Your task to perform on an android device: turn off priority inbox in the gmail app Image 0: 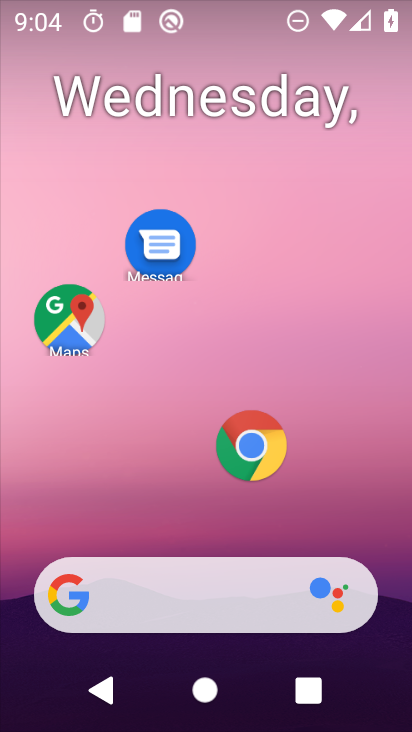
Step 0: drag from (196, 533) to (196, 82)
Your task to perform on an android device: turn off priority inbox in the gmail app Image 1: 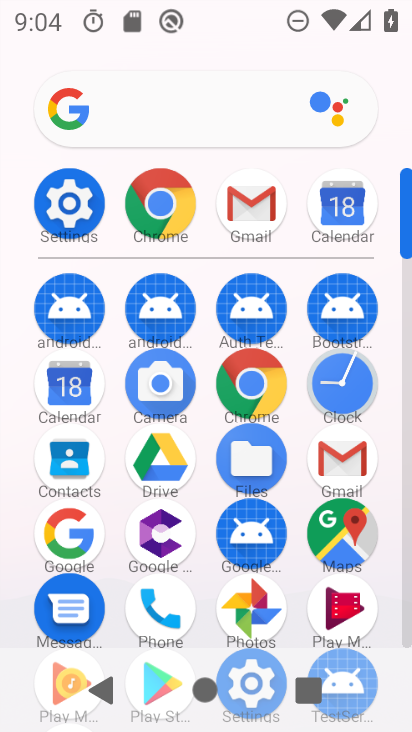
Step 1: click (252, 201)
Your task to perform on an android device: turn off priority inbox in the gmail app Image 2: 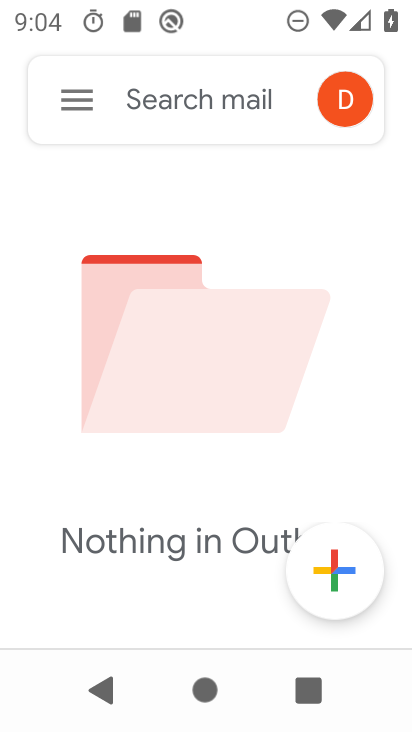
Step 2: click (79, 96)
Your task to perform on an android device: turn off priority inbox in the gmail app Image 3: 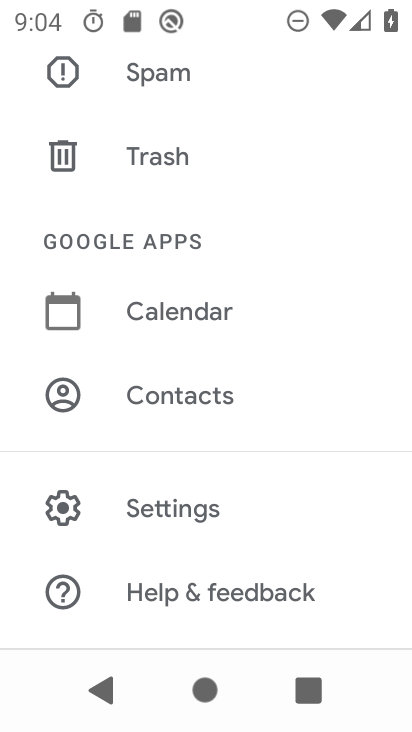
Step 3: click (229, 501)
Your task to perform on an android device: turn off priority inbox in the gmail app Image 4: 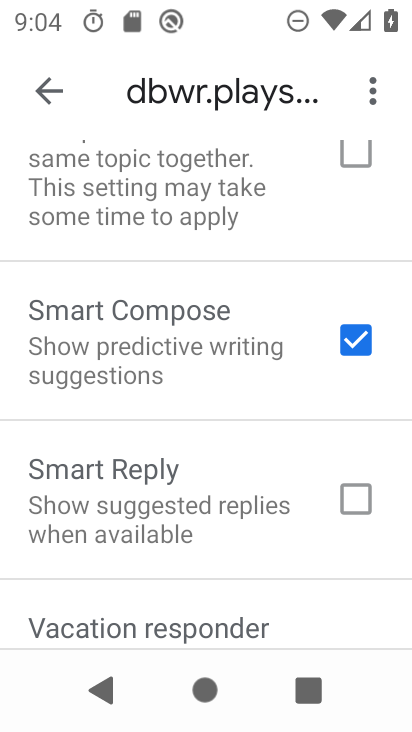
Step 4: drag from (179, 181) to (198, 654)
Your task to perform on an android device: turn off priority inbox in the gmail app Image 5: 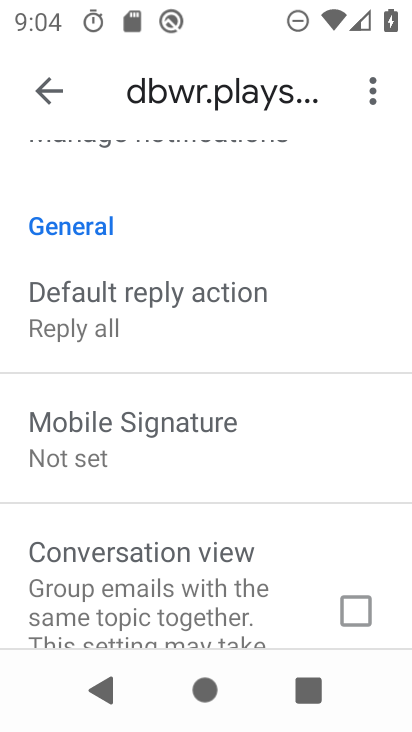
Step 5: drag from (161, 169) to (166, 653)
Your task to perform on an android device: turn off priority inbox in the gmail app Image 6: 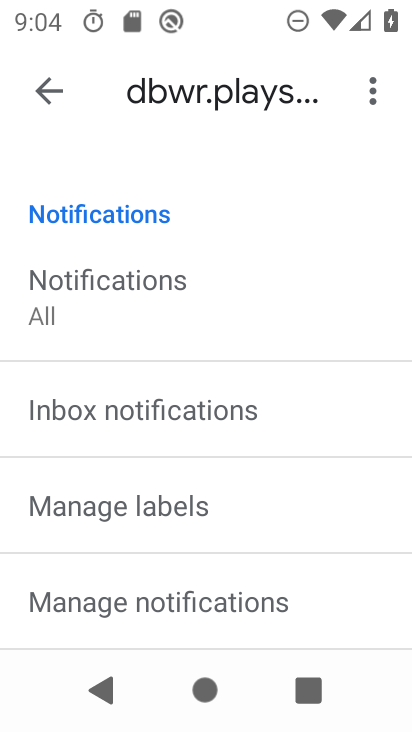
Step 6: drag from (155, 198) to (155, 630)
Your task to perform on an android device: turn off priority inbox in the gmail app Image 7: 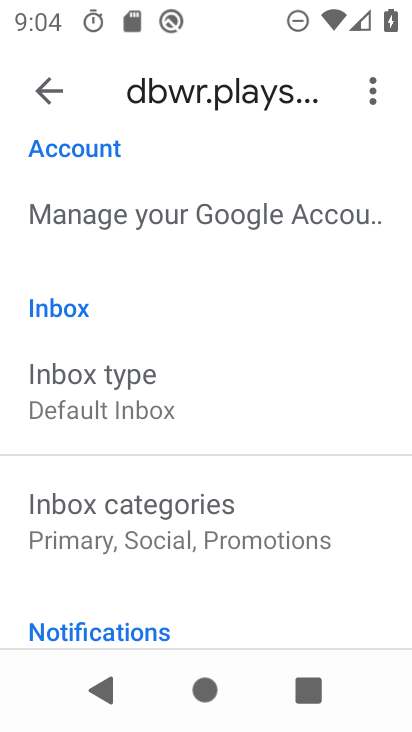
Step 7: drag from (163, 268) to (178, 568)
Your task to perform on an android device: turn off priority inbox in the gmail app Image 8: 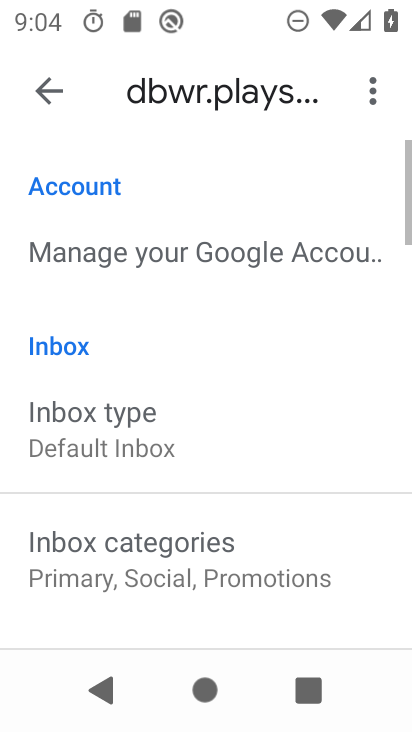
Step 8: click (194, 430)
Your task to perform on an android device: turn off priority inbox in the gmail app Image 9: 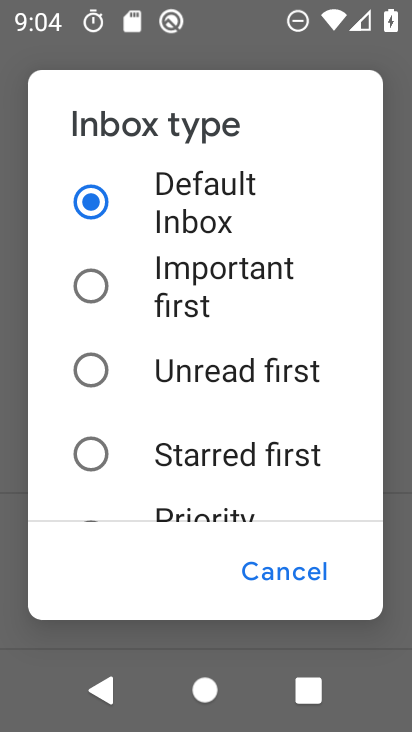
Step 9: drag from (141, 456) to (142, 348)
Your task to perform on an android device: turn off priority inbox in the gmail app Image 10: 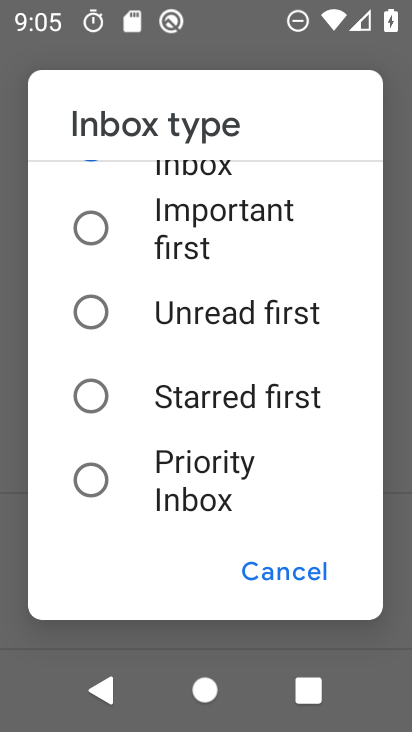
Step 10: click (86, 388)
Your task to perform on an android device: turn off priority inbox in the gmail app Image 11: 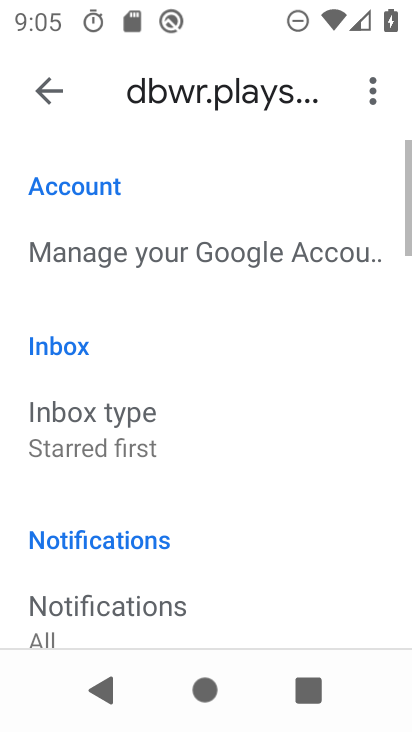
Step 11: task complete